Your task to perform on an android device: move a message to another label in the gmail app Image 0: 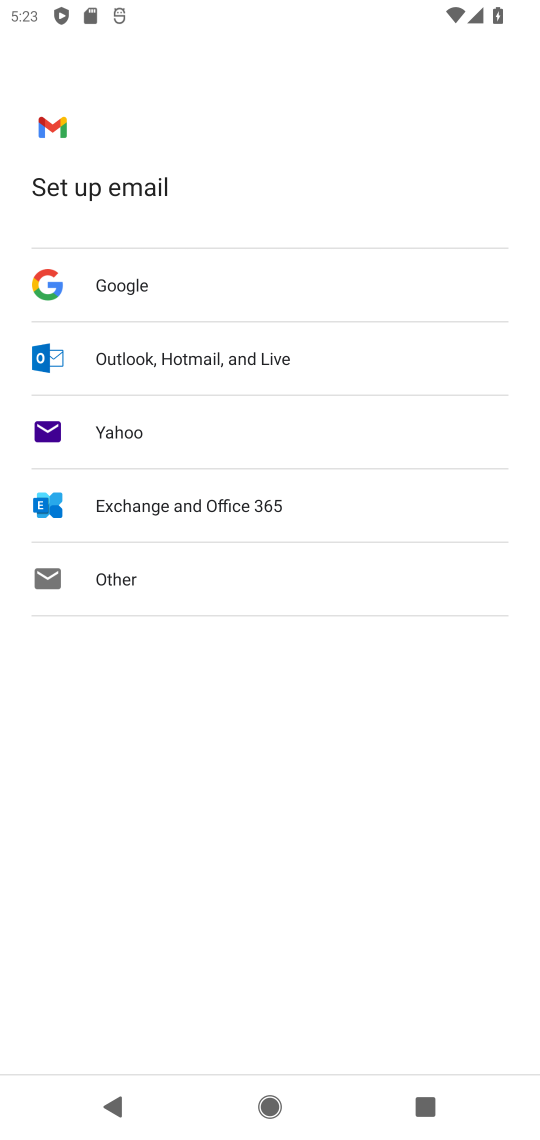
Step 0: press home button
Your task to perform on an android device: move a message to another label in the gmail app Image 1: 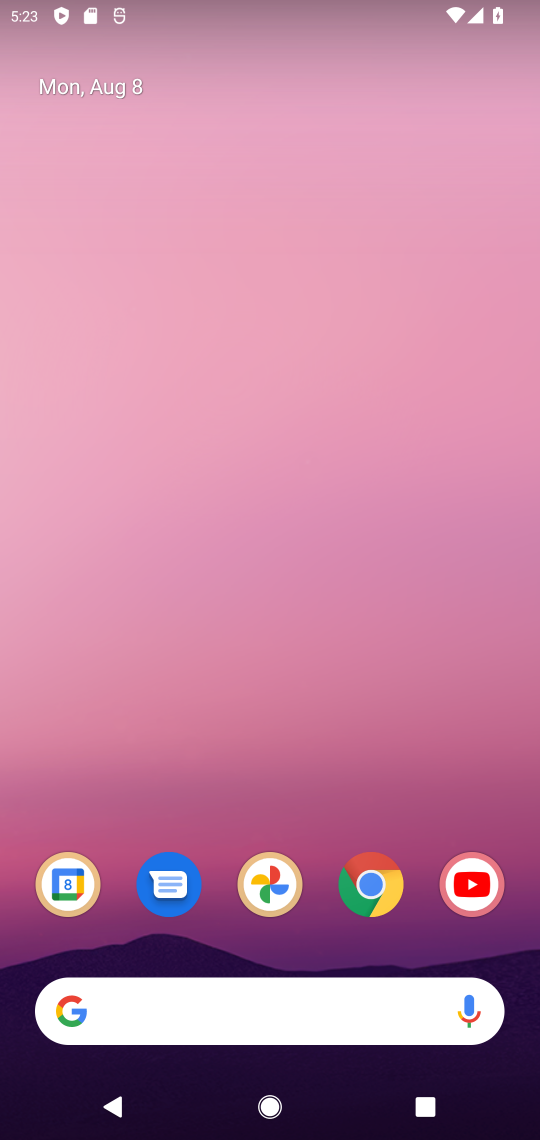
Step 1: drag from (437, 832) to (378, 160)
Your task to perform on an android device: move a message to another label in the gmail app Image 2: 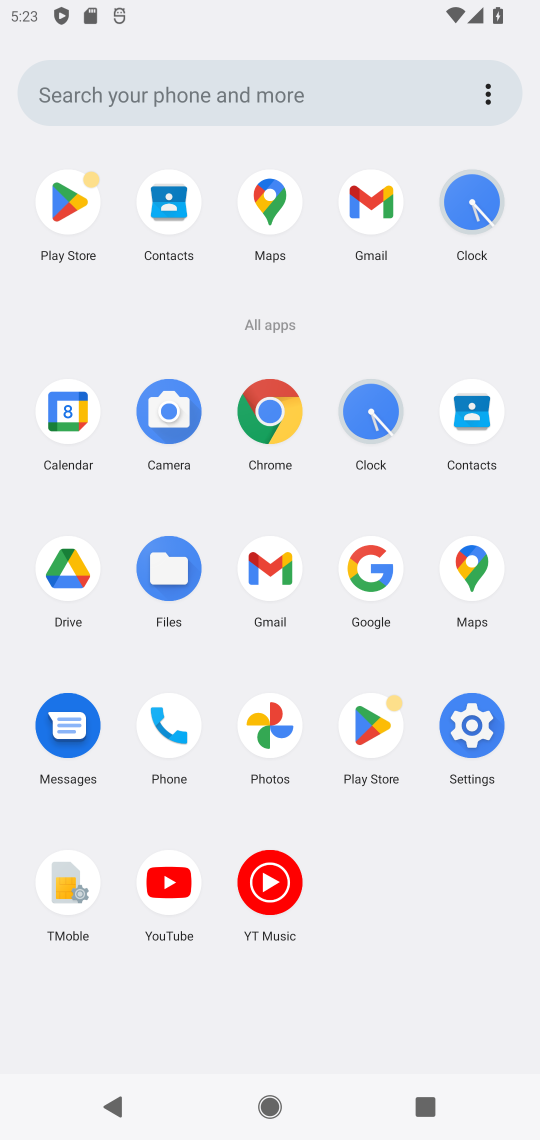
Step 2: click (357, 223)
Your task to perform on an android device: move a message to another label in the gmail app Image 3: 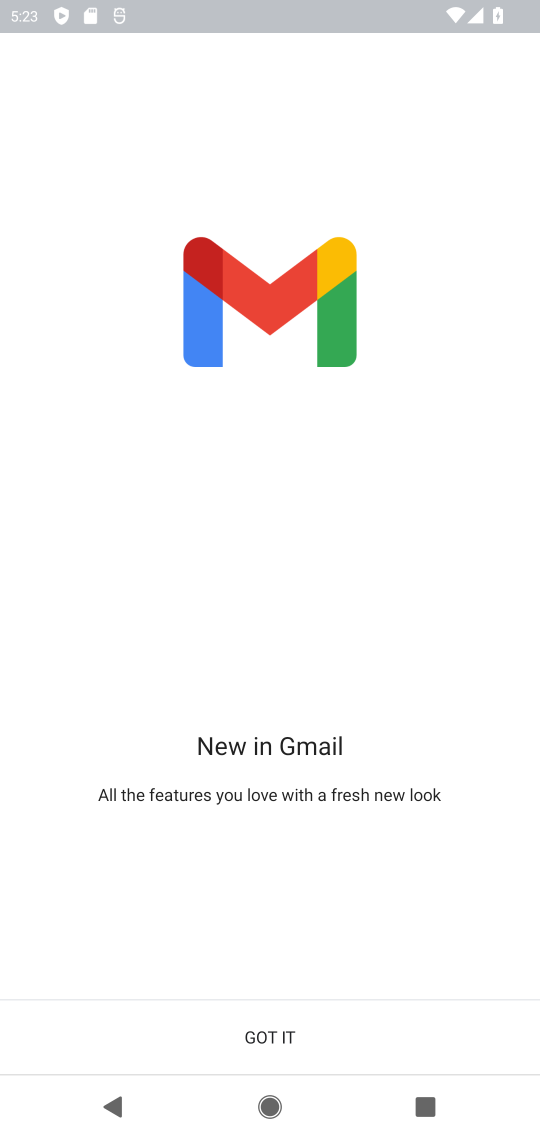
Step 3: click (301, 1031)
Your task to perform on an android device: move a message to another label in the gmail app Image 4: 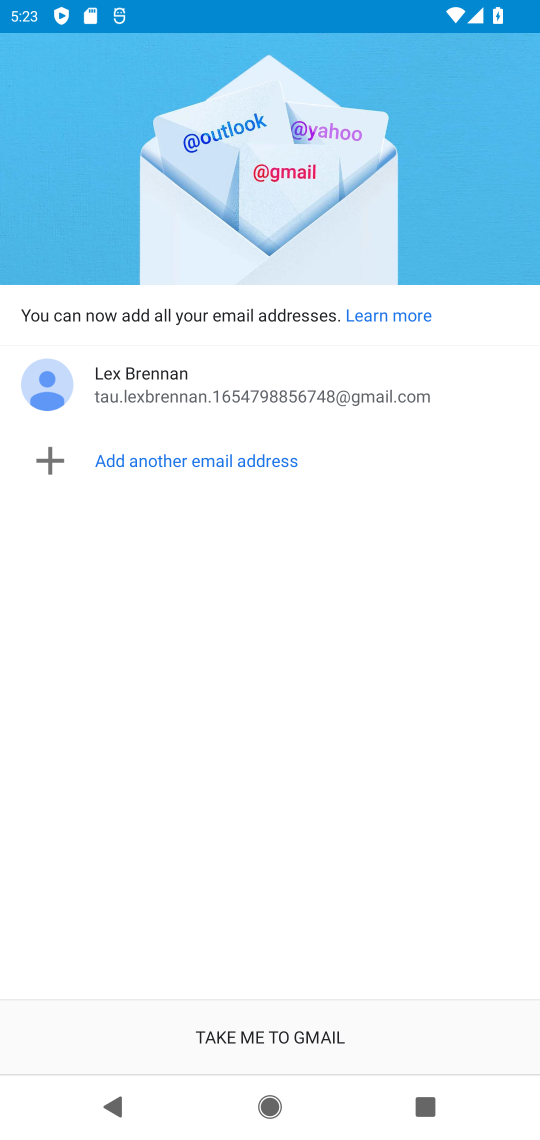
Step 4: click (300, 1031)
Your task to perform on an android device: move a message to another label in the gmail app Image 5: 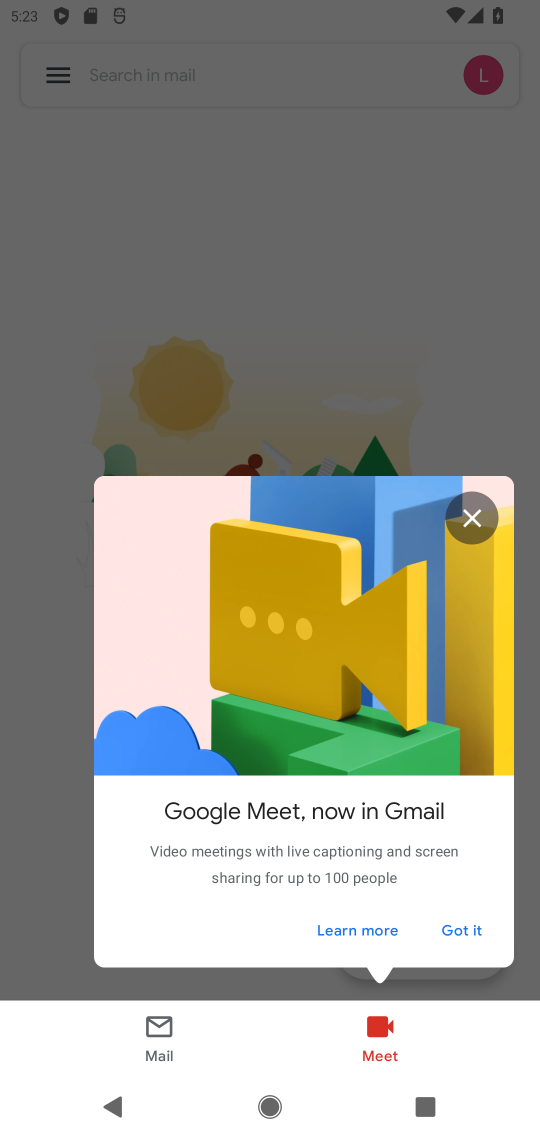
Step 5: click (482, 928)
Your task to perform on an android device: move a message to another label in the gmail app Image 6: 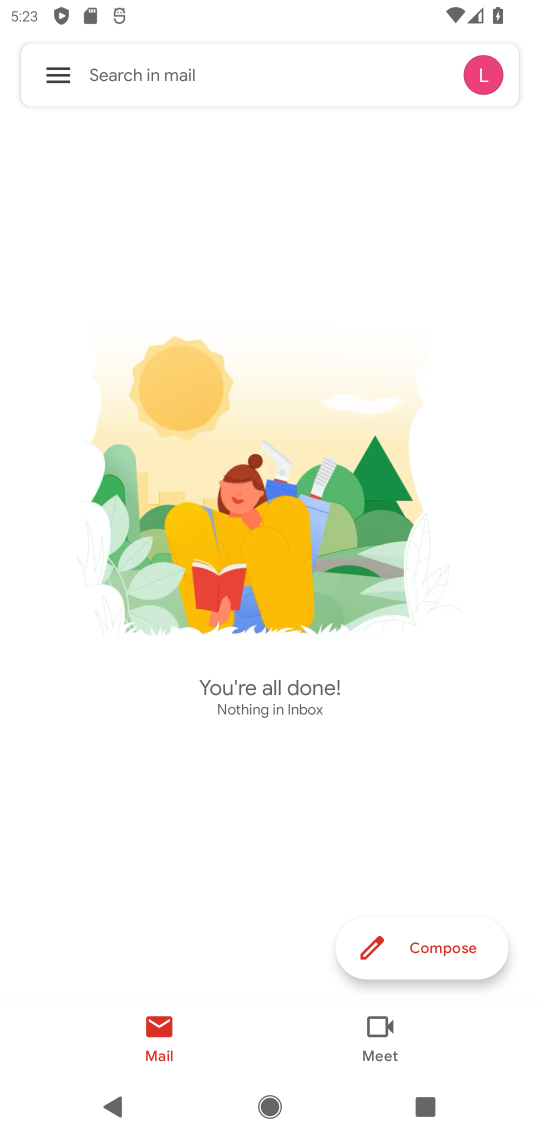
Step 6: task complete